Your task to perform on an android device: Play the last video I watched on Youtube Image 0: 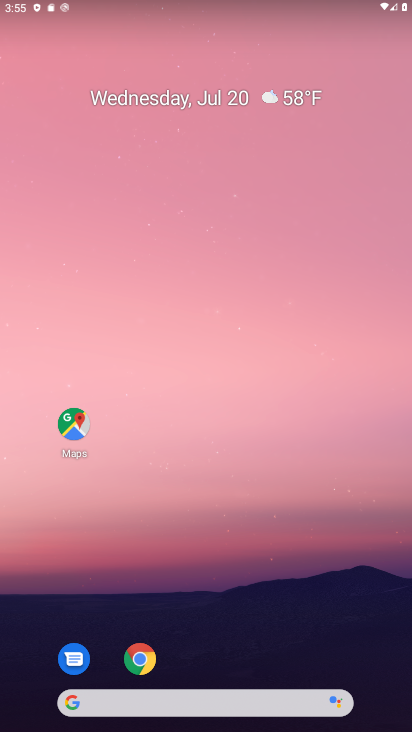
Step 0: drag from (234, 649) to (149, 119)
Your task to perform on an android device: Play the last video I watched on Youtube Image 1: 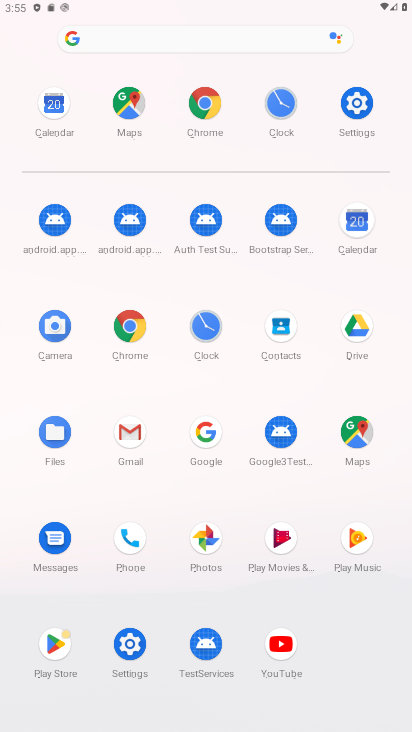
Step 1: click (273, 637)
Your task to perform on an android device: Play the last video I watched on Youtube Image 2: 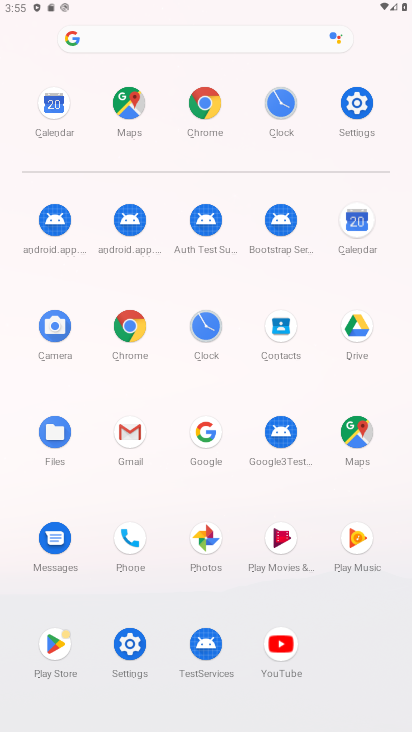
Step 2: click (273, 637)
Your task to perform on an android device: Play the last video I watched on Youtube Image 3: 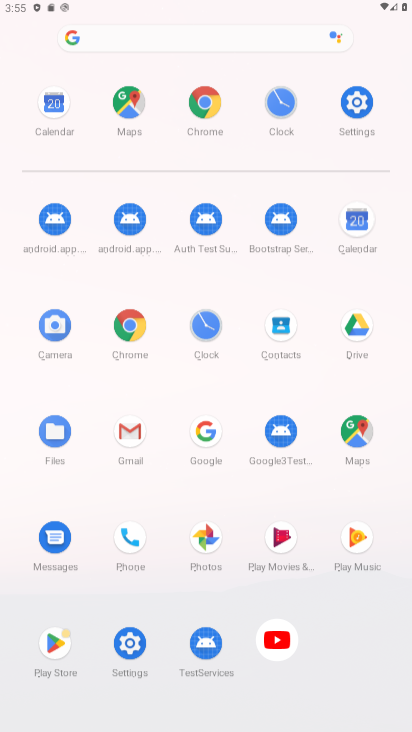
Step 3: click (273, 638)
Your task to perform on an android device: Play the last video I watched on Youtube Image 4: 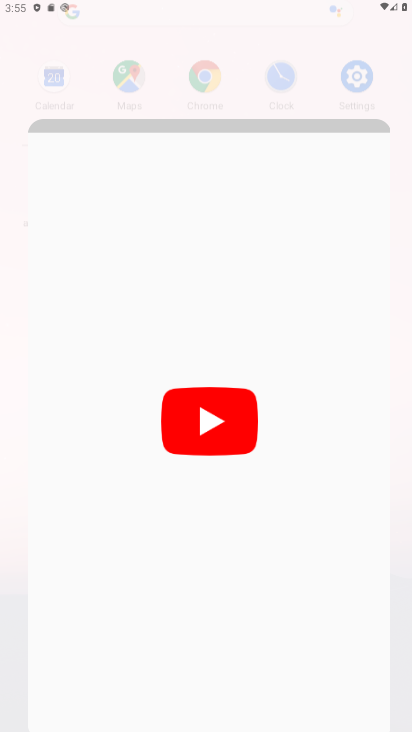
Step 4: click (275, 642)
Your task to perform on an android device: Play the last video I watched on Youtube Image 5: 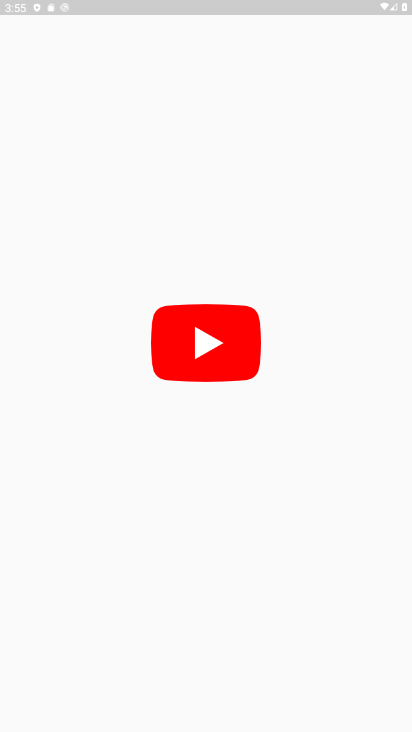
Step 5: click (276, 646)
Your task to perform on an android device: Play the last video I watched on Youtube Image 6: 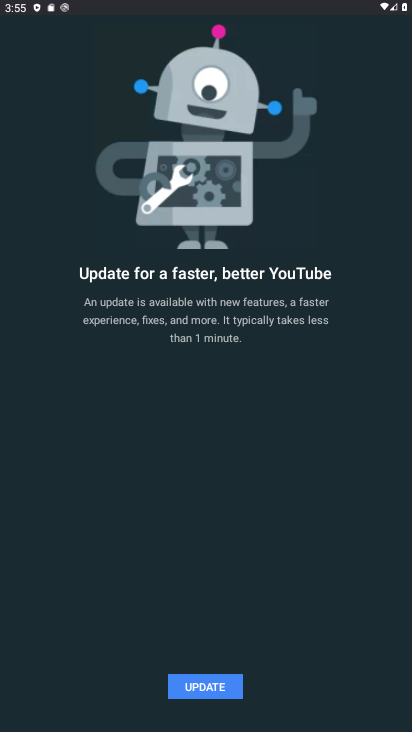
Step 6: click (205, 683)
Your task to perform on an android device: Play the last video I watched on Youtube Image 7: 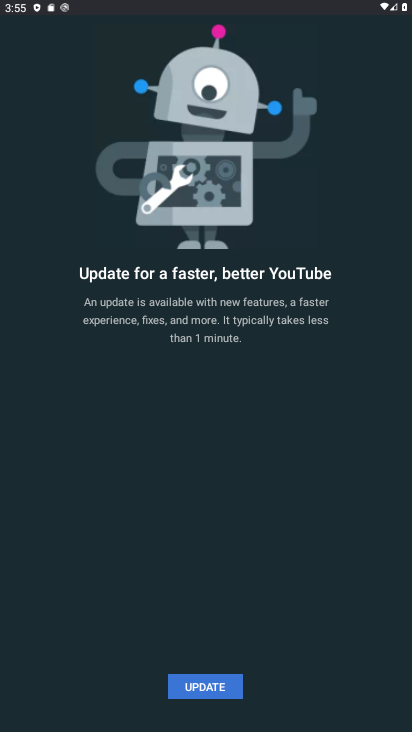
Step 7: click (204, 684)
Your task to perform on an android device: Play the last video I watched on Youtube Image 8: 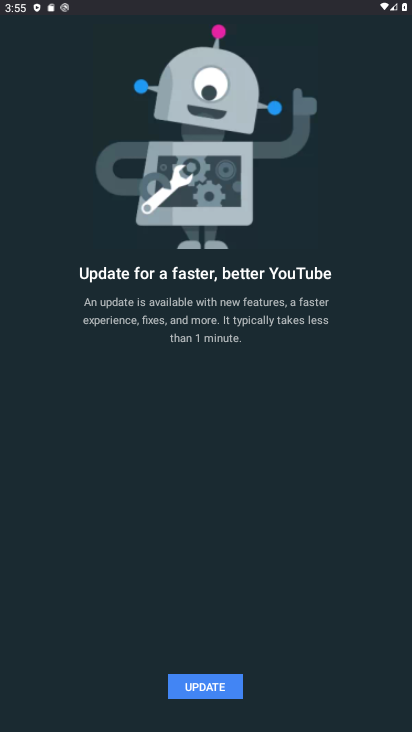
Step 8: click (206, 684)
Your task to perform on an android device: Play the last video I watched on Youtube Image 9: 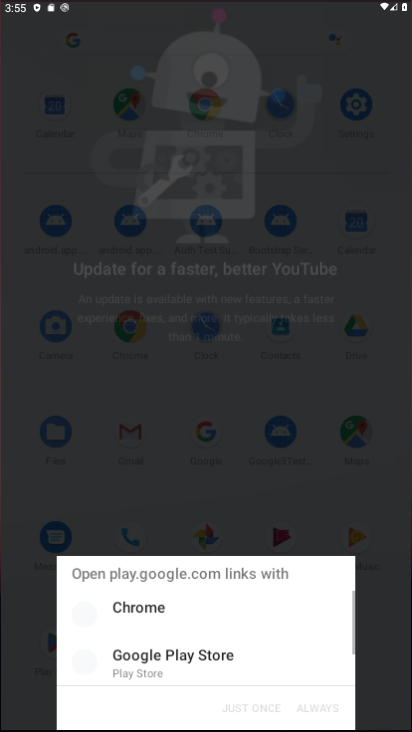
Step 9: click (209, 688)
Your task to perform on an android device: Play the last video I watched on Youtube Image 10: 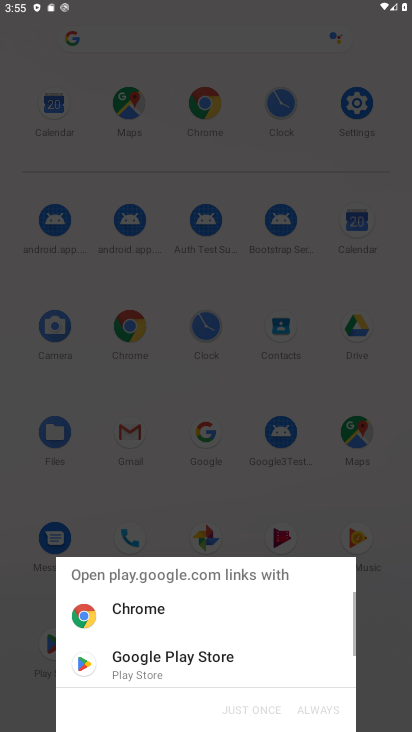
Step 10: click (209, 673)
Your task to perform on an android device: Play the last video I watched on Youtube Image 11: 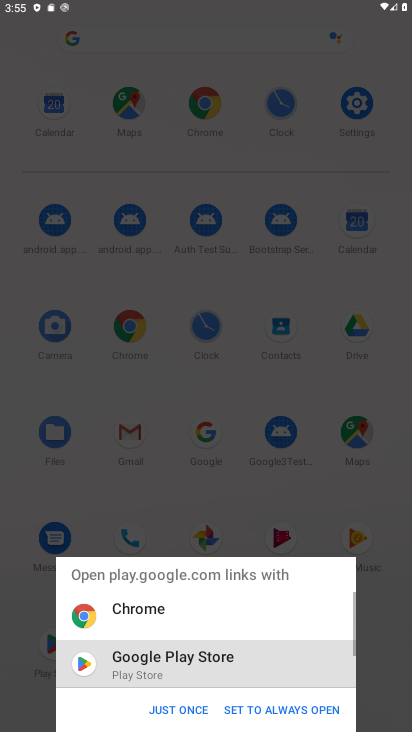
Step 11: click (208, 665)
Your task to perform on an android device: Play the last video I watched on Youtube Image 12: 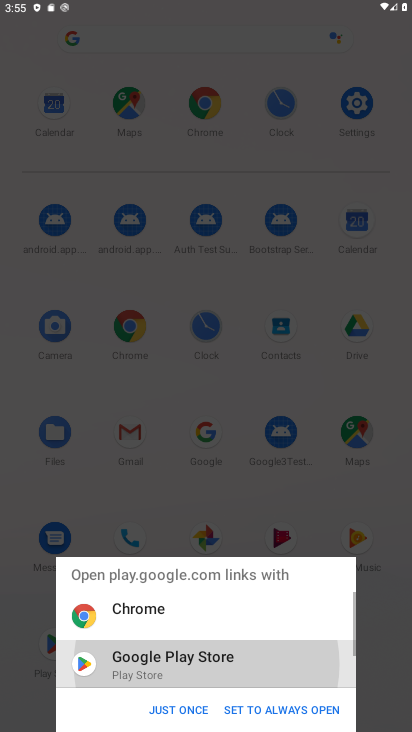
Step 12: click (208, 665)
Your task to perform on an android device: Play the last video I watched on Youtube Image 13: 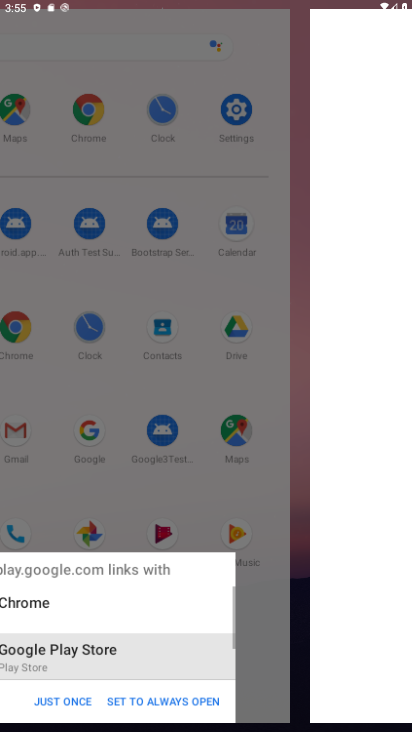
Step 13: click (183, 665)
Your task to perform on an android device: Play the last video I watched on Youtube Image 14: 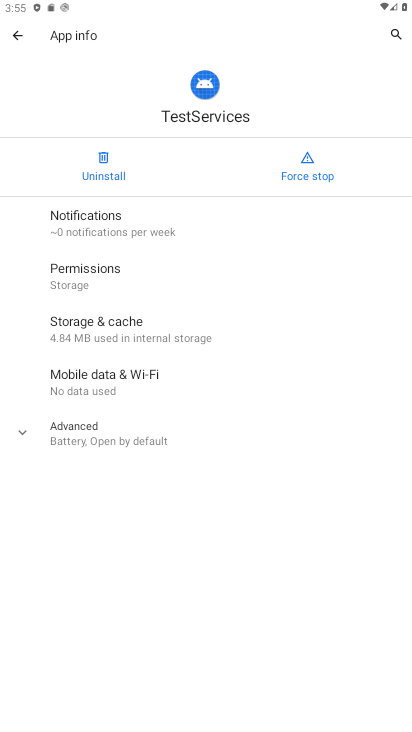
Step 14: task complete